Your task to perform on an android device: turn off improve location accuracy Image 0: 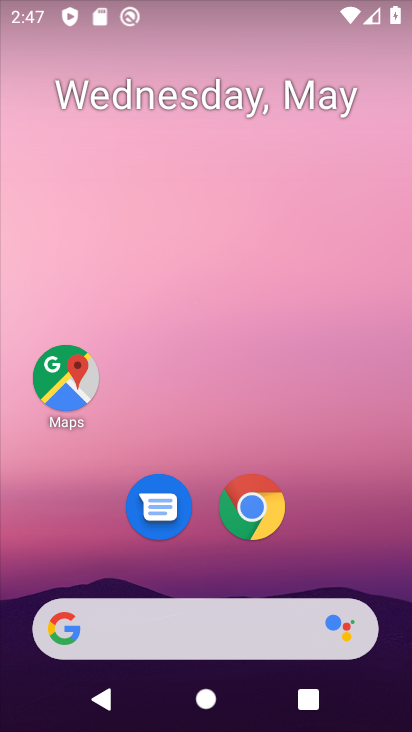
Step 0: drag from (207, 549) to (183, 170)
Your task to perform on an android device: turn off improve location accuracy Image 1: 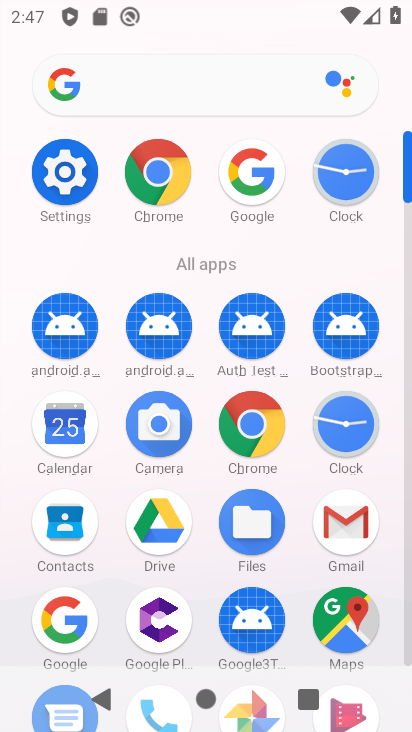
Step 1: drag from (186, 461) to (191, 190)
Your task to perform on an android device: turn off improve location accuracy Image 2: 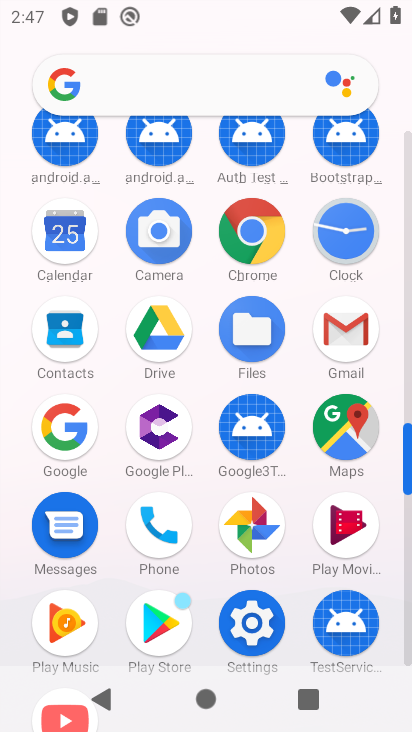
Step 2: click (254, 614)
Your task to perform on an android device: turn off improve location accuracy Image 3: 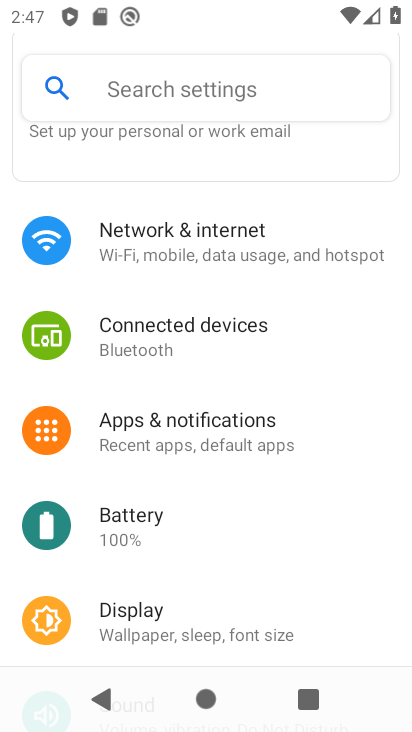
Step 3: drag from (281, 610) to (300, 185)
Your task to perform on an android device: turn off improve location accuracy Image 4: 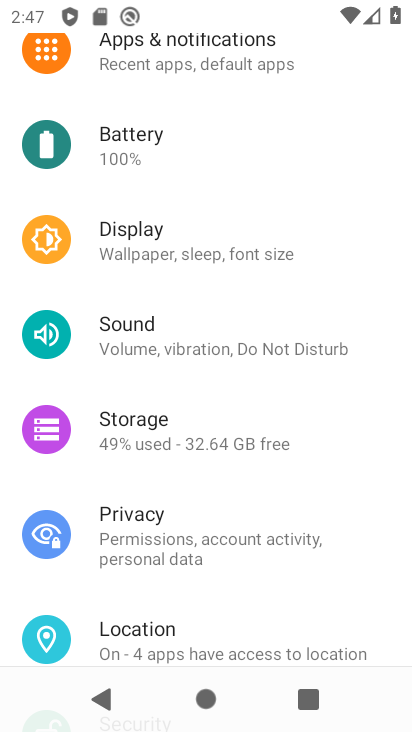
Step 4: click (173, 639)
Your task to perform on an android device: turn off improve location accuracy Image 5: 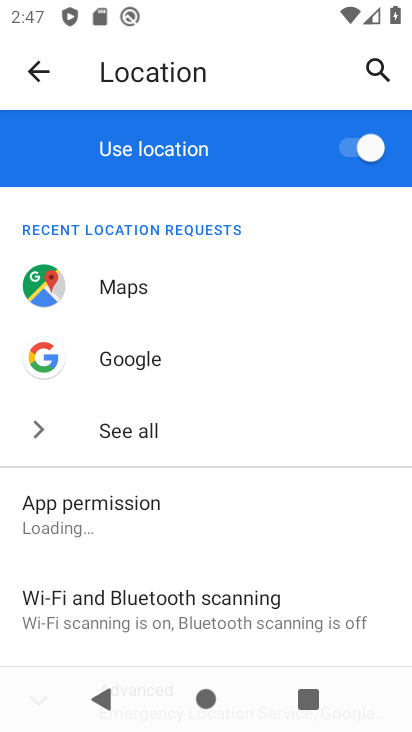
Step 5: drag from (157, 604) to (198, 343)
Your task to perform on an android device: turn off improve location accuracy Image 6: 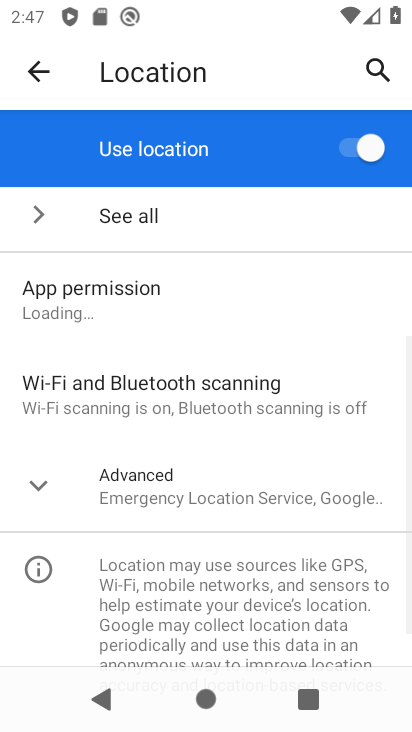
Step 6: click (139, 498)
Your task to perform on an android device: turn off improve location accuracy Image 7: 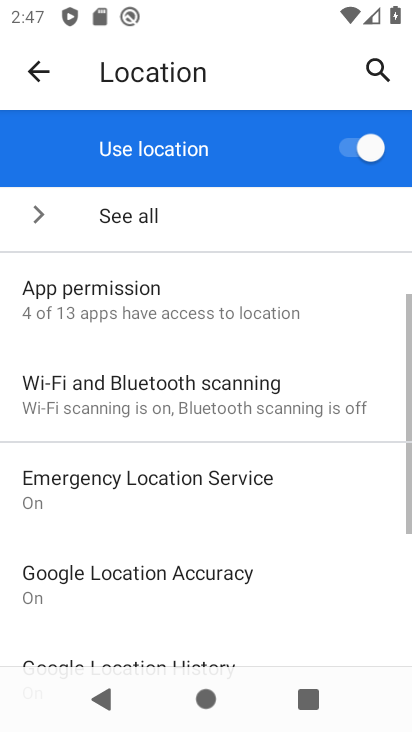
Step 7: click (249, 614)
Your task to perform on an android device: turn off improve location accuracy Image 8: 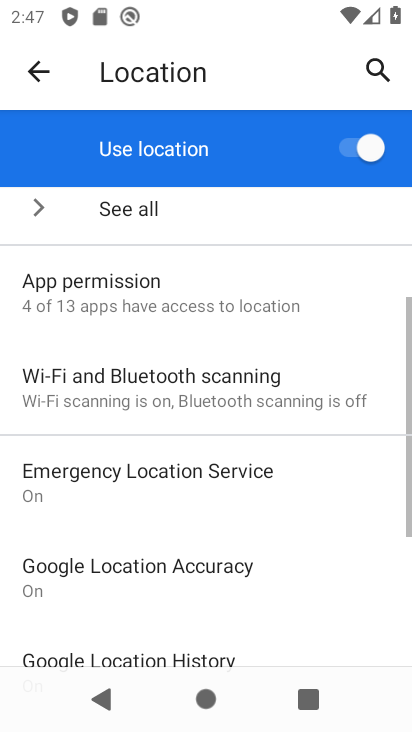
Step 8: click (130, 582)
Your task to perform on an android device: turn off improve location accuracy Image 9: 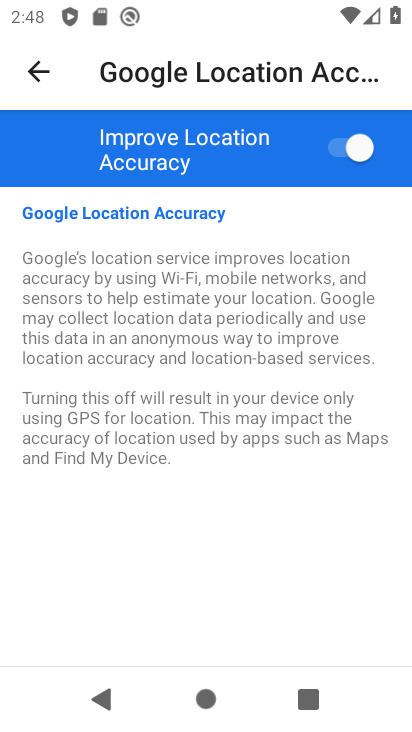
Step 9: click (352, 152)
Your task to perform on an android device: turn off improve location accuracy Image 10: 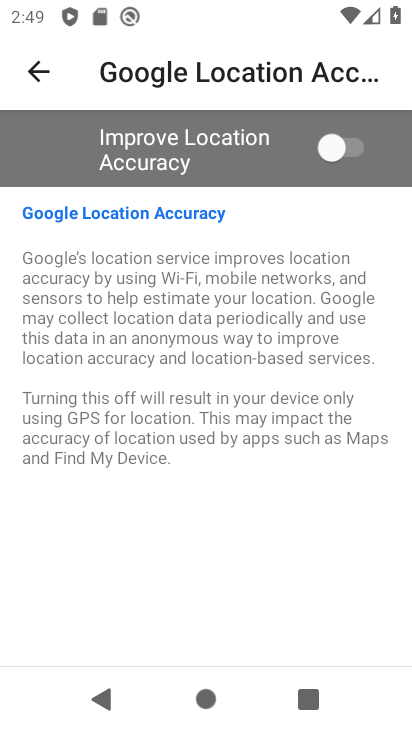
Step 10: task complete